Your task to perform on an android device: Go to wifi settings Image 0: 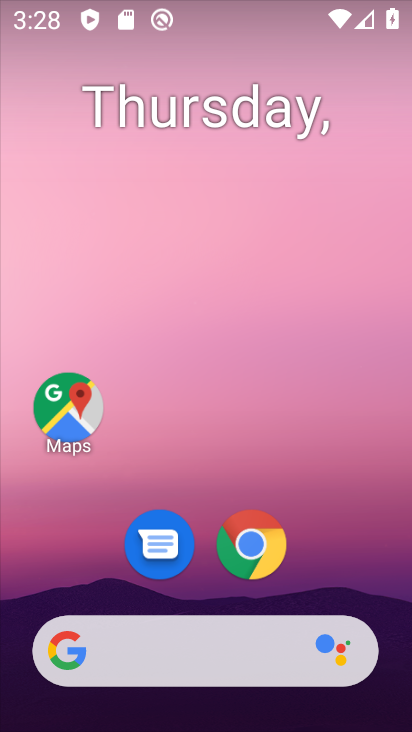
Step 0: drag from (331, 579) to (319, 16)
Your task to perform on an android device: Go to wifi settings Image 1: 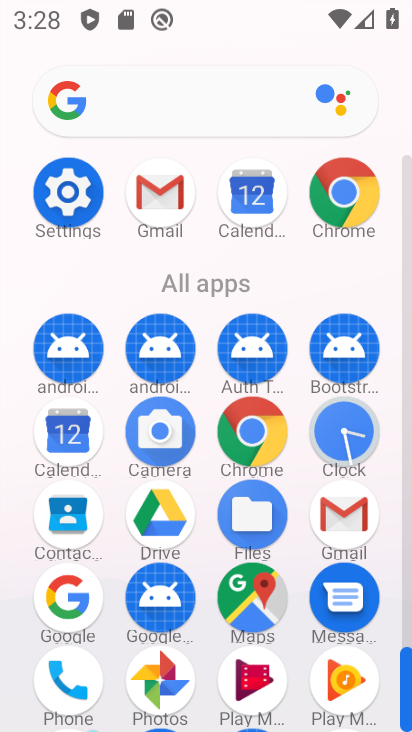
Step 1: click (86, 186)
Your task to perform on an android device: Go to wifi settings Image 2: 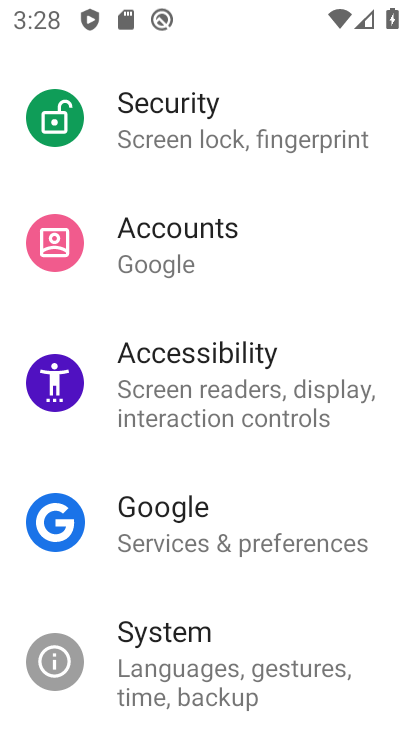
Step 2: drag from (216, 228) to (246, 702)
Your task to perform on an android device: Go to wifi settings Image 3: 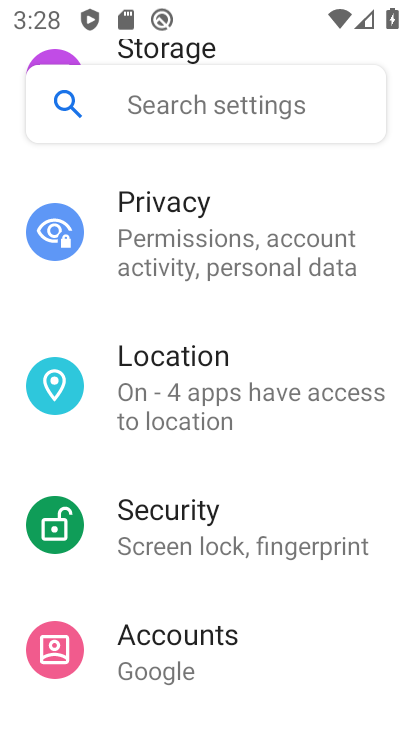
Step 3: drag from (231, 278) to (299, 706)
Your task to perform on an android device: Go to wifi settings Image 4: 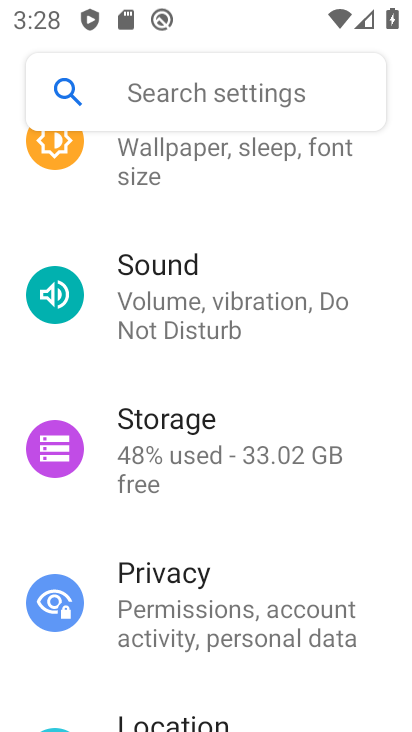
Step 4: drag from (256, 276) to (303, 712)
Your task to perform on an android device: Go to wifi settings Image 5: 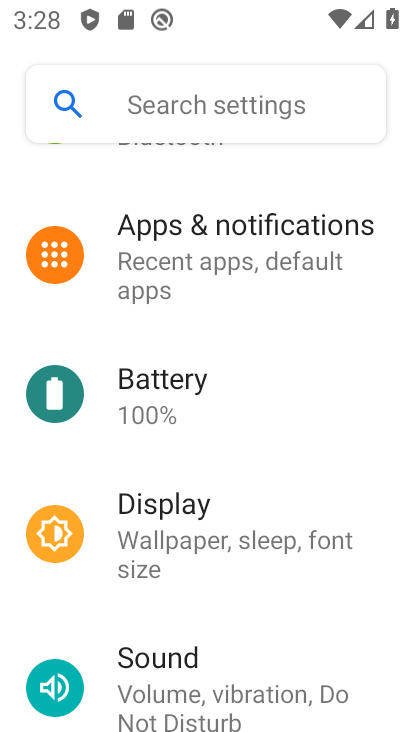
Step 5: drag from (253, 224) to (245, 440)
Your task to perform on an android device: Go to wifi settings Image 6: 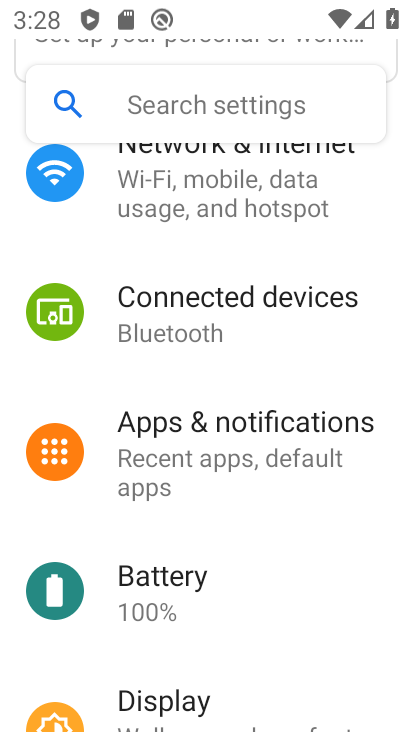
Step 6: drag from (220, 253) to (238, 516)
Your task to perform on an android device: Go to wifi settings Image 7: 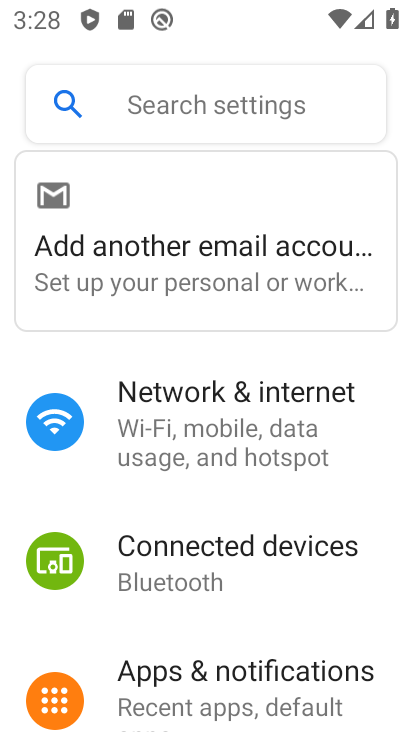
Step 7: click (216, 390)
Your task to perform on an android device: Go to wifi settings Image 8: 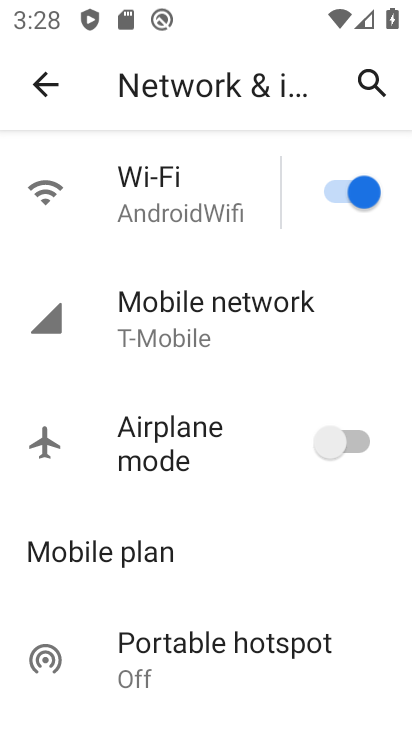
Step 8: click (218, 197)
Your task to perform on an android device: Go to wifi settings Image 9: 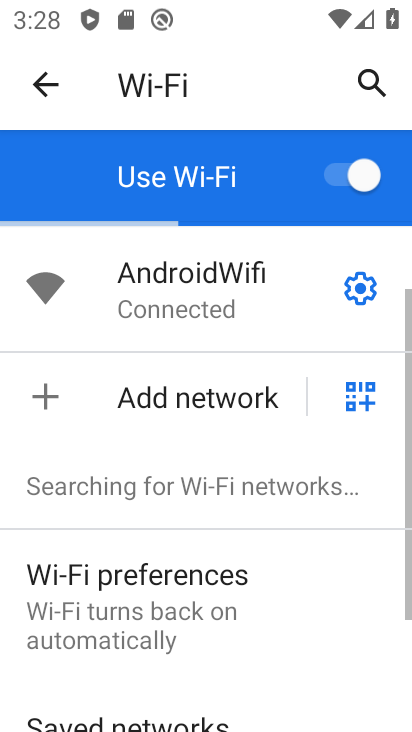
Step 9: task complete